Your task to perform on an android device: Go to battery settings Image 0: 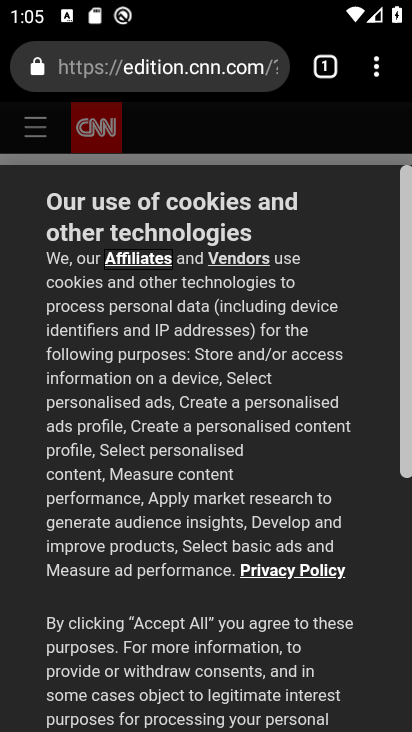
Step 0: drag from (224, 640) to (266, 235)
Your task to perform on an android device: Go to battery settings Image 1: 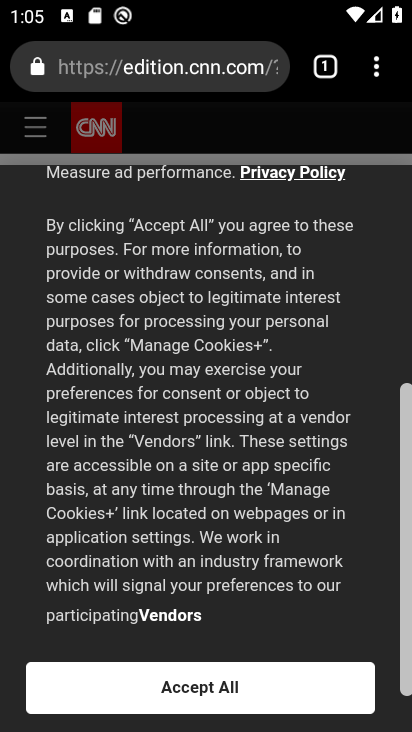
Step 1: click (253, 686)
Your task to perform on an android device: Go to battery settings Image 2: 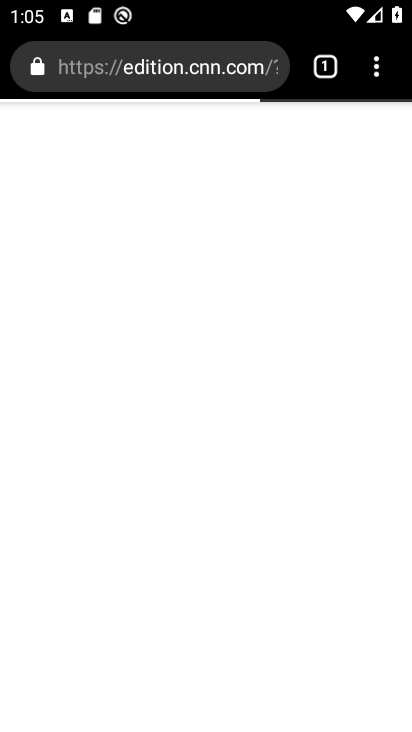
Step 2: press home button
Your task to perform on an android device: Go to battery settings Image 3: 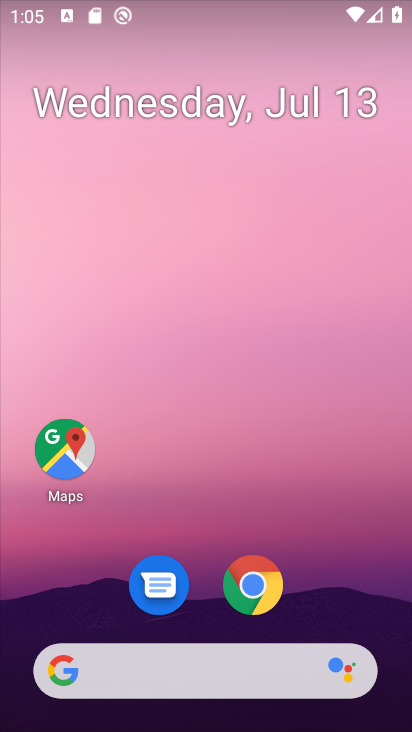
Step 3: drag from (336, 593) to (333, 34)
Your task to perform on an android device: Go to battery settings Image 4: 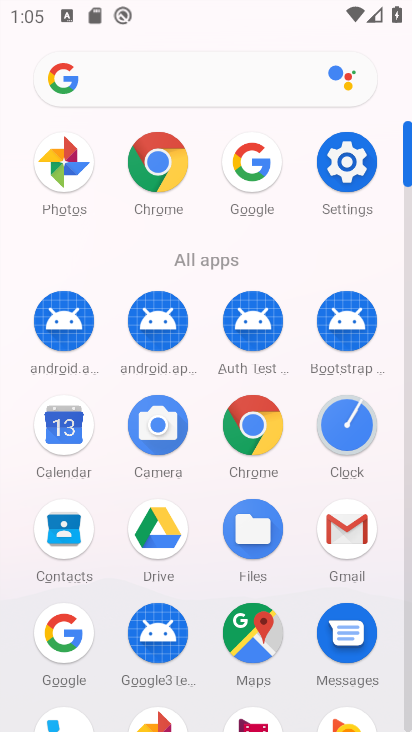
Step 4: click (353, 157)
Your task to perform on an android device: Go to battery settings Image 5: 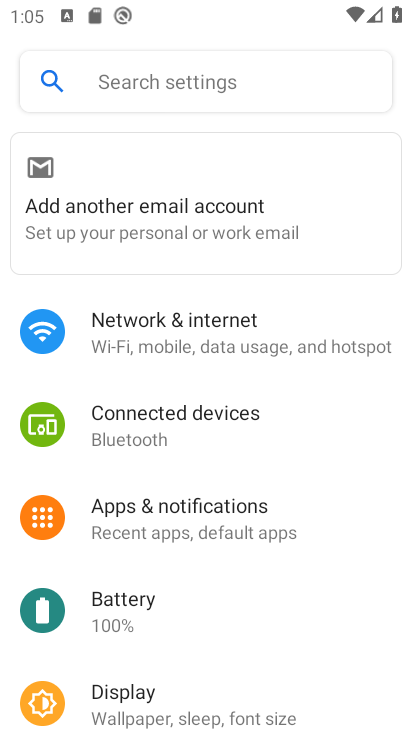
Step 5: click (133, 604)
Your task to perform on an android device: Go to battery settings Image 6: 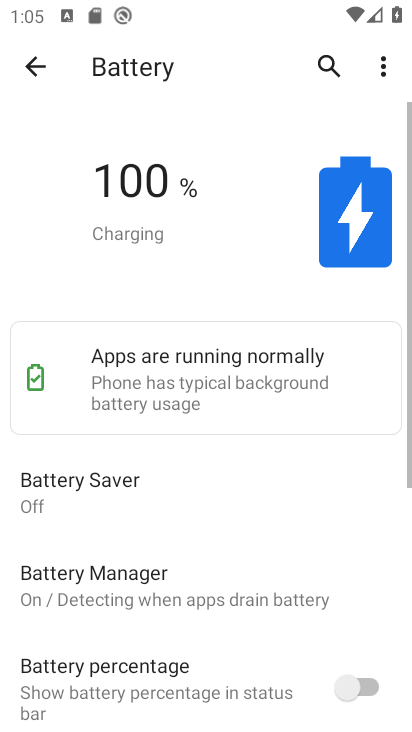
Step 6: task complete